Your task to perform on an android device: Do I have any events today? Image 0: 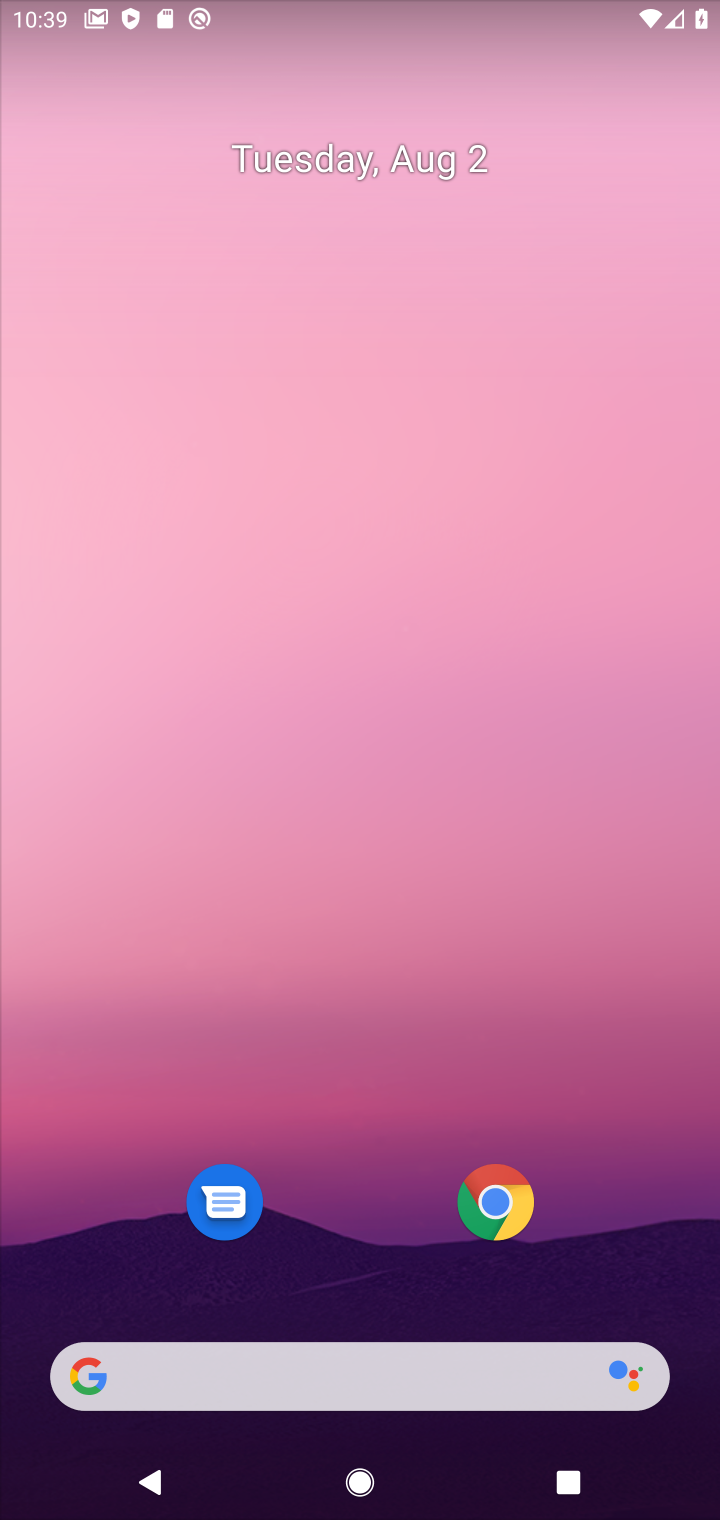
Step 0: drag from (692, 1284) to (411, 14)
Your task to perform on an android device: Do I have any events today? Image 1: 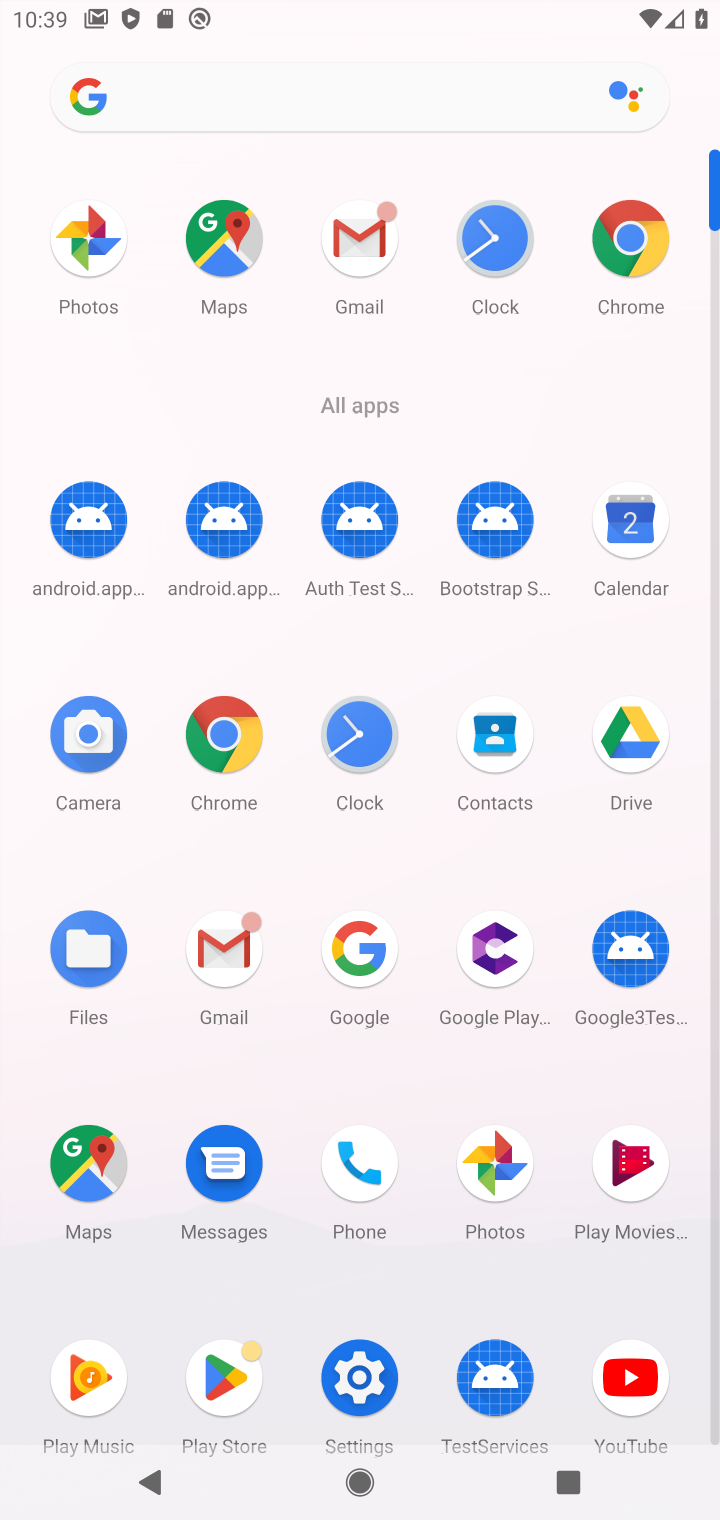
Step 1: click (617, 553)
Your task to perform on an android device: Do I have any events today? Image 2: 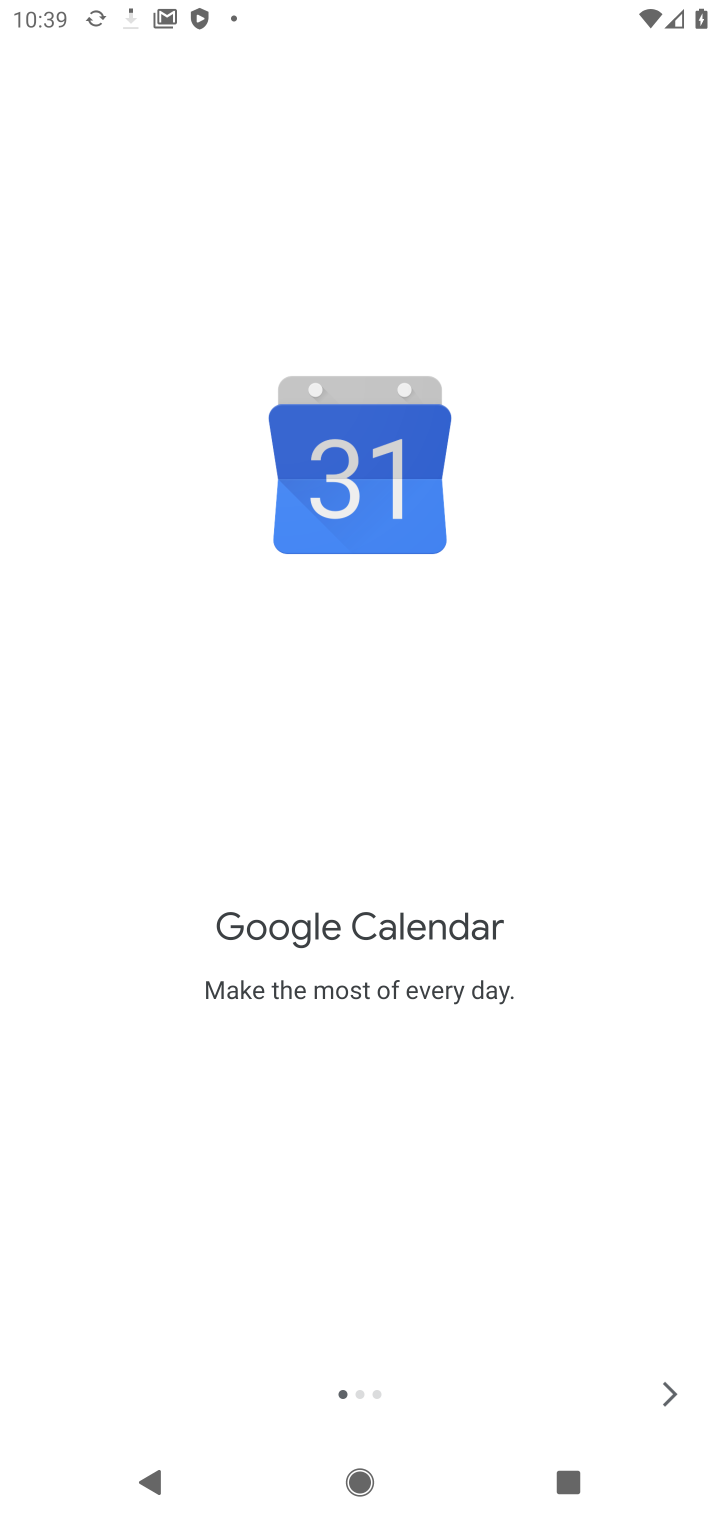
Step 2: click (679, 1408)
Your task to perform on an android device: Do I have any events today? Image 3: 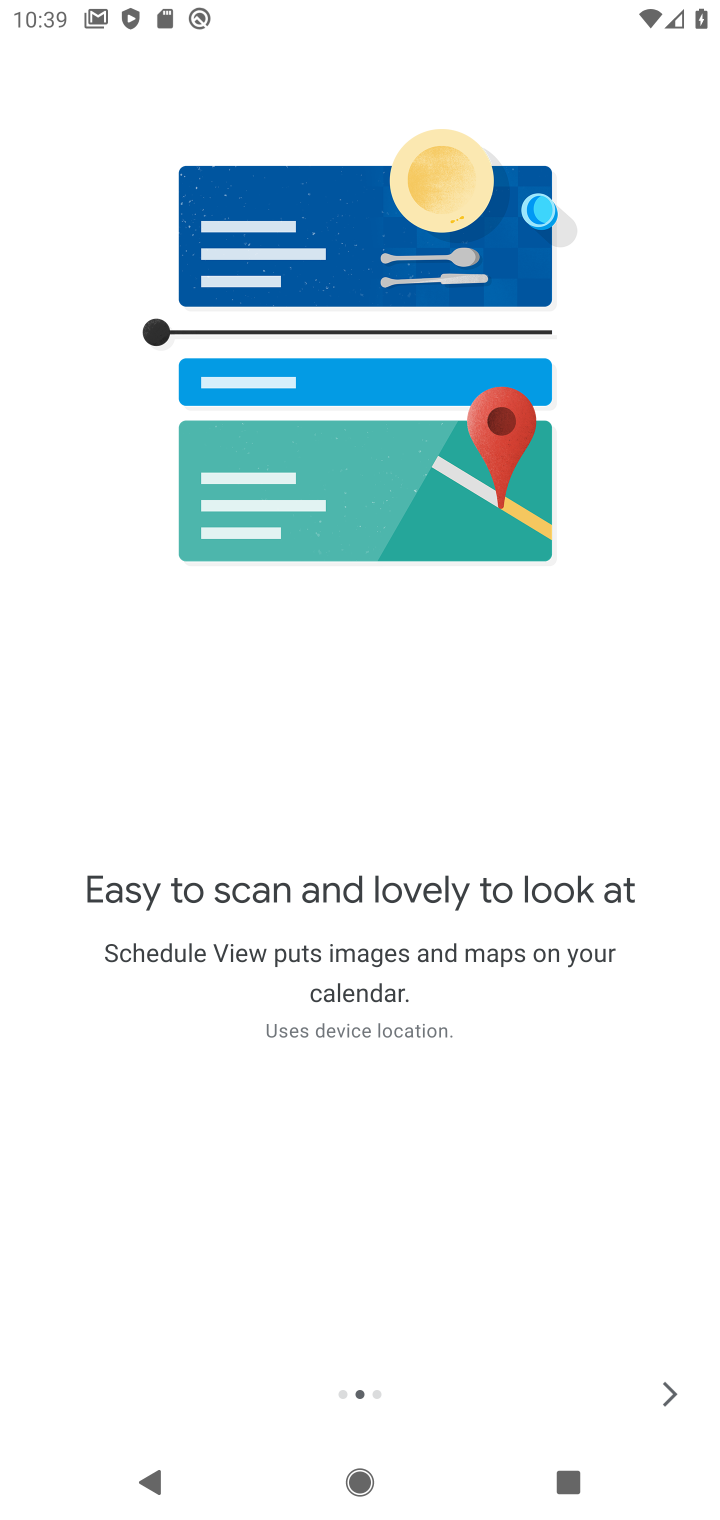
Step 3: click (679, 1408)
Your task to perform on an android device: Do I have any events today? Image 4: 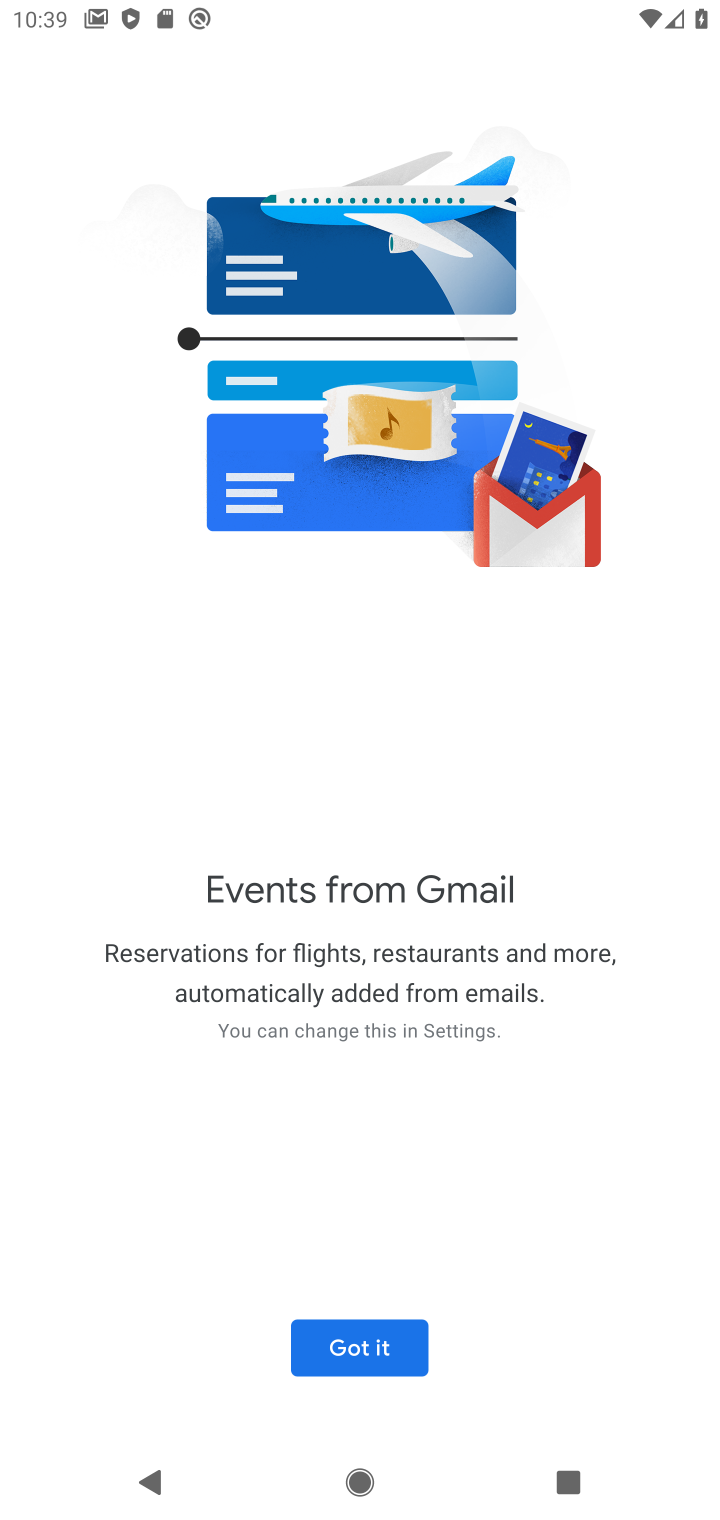
Step 4: click (394, 1341)
Your task to perform on an android device: Do I have any events today? Image 5: 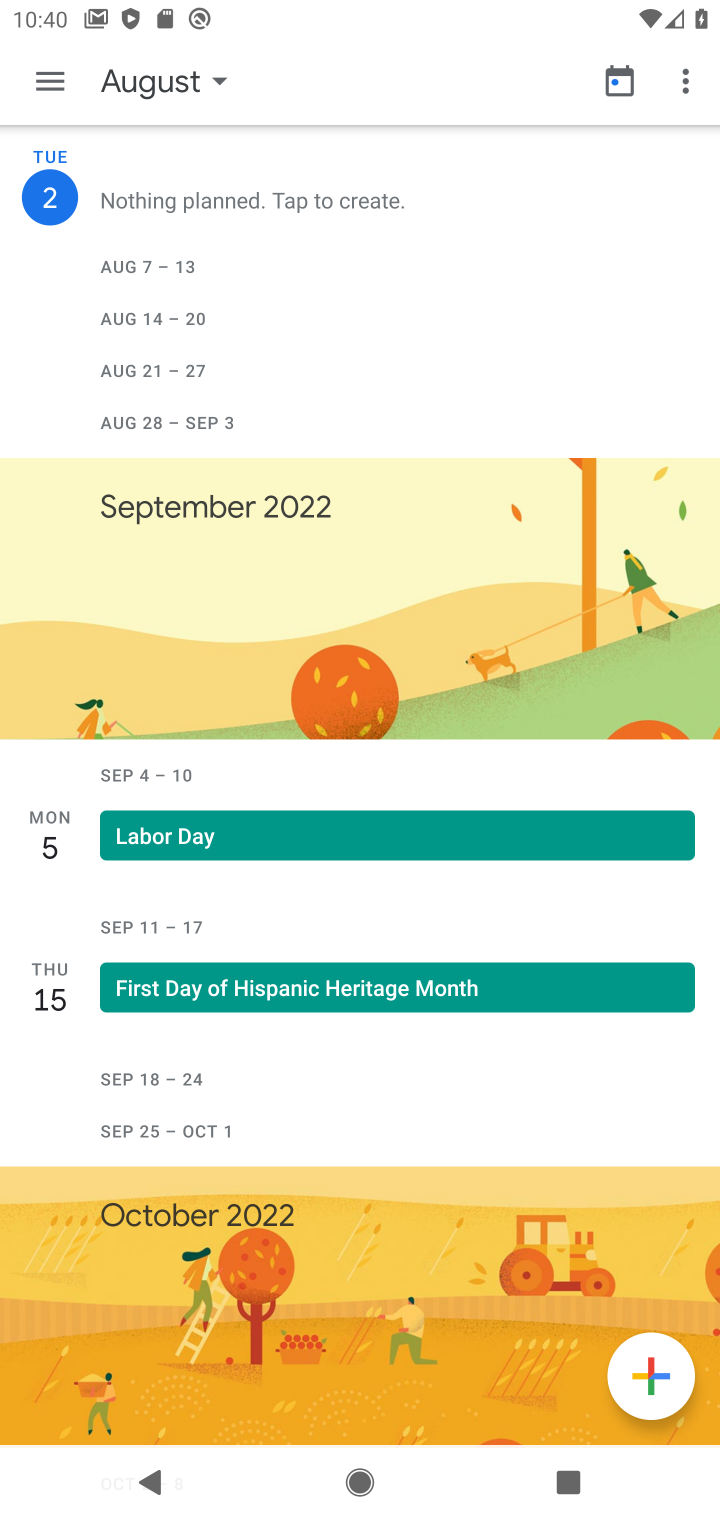
Step 5: click (60, 89)
Your task to perform on an android device: Do I have any events today? Image 6: 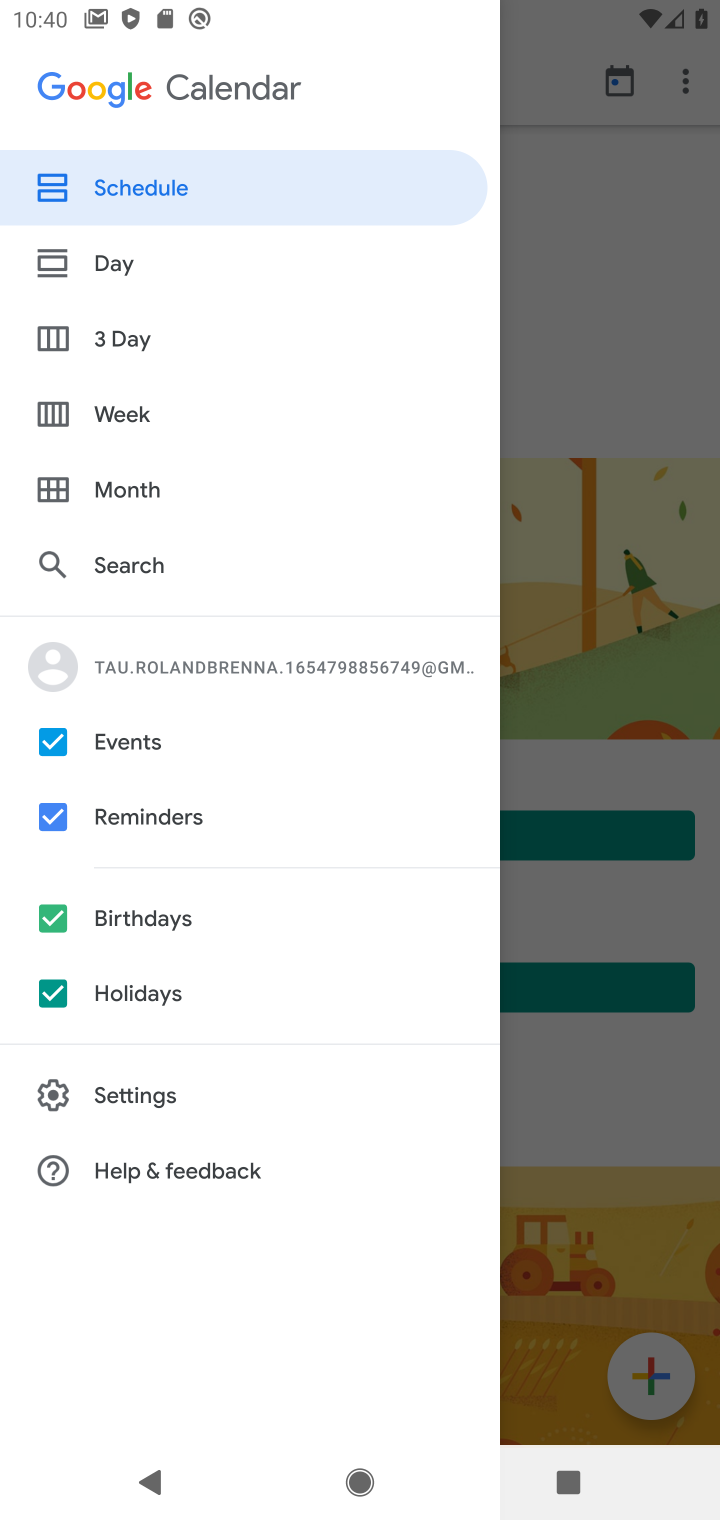
Step 6: click (49, 991)
Your task to perform on an android device: Do I have any events today? Image 7: 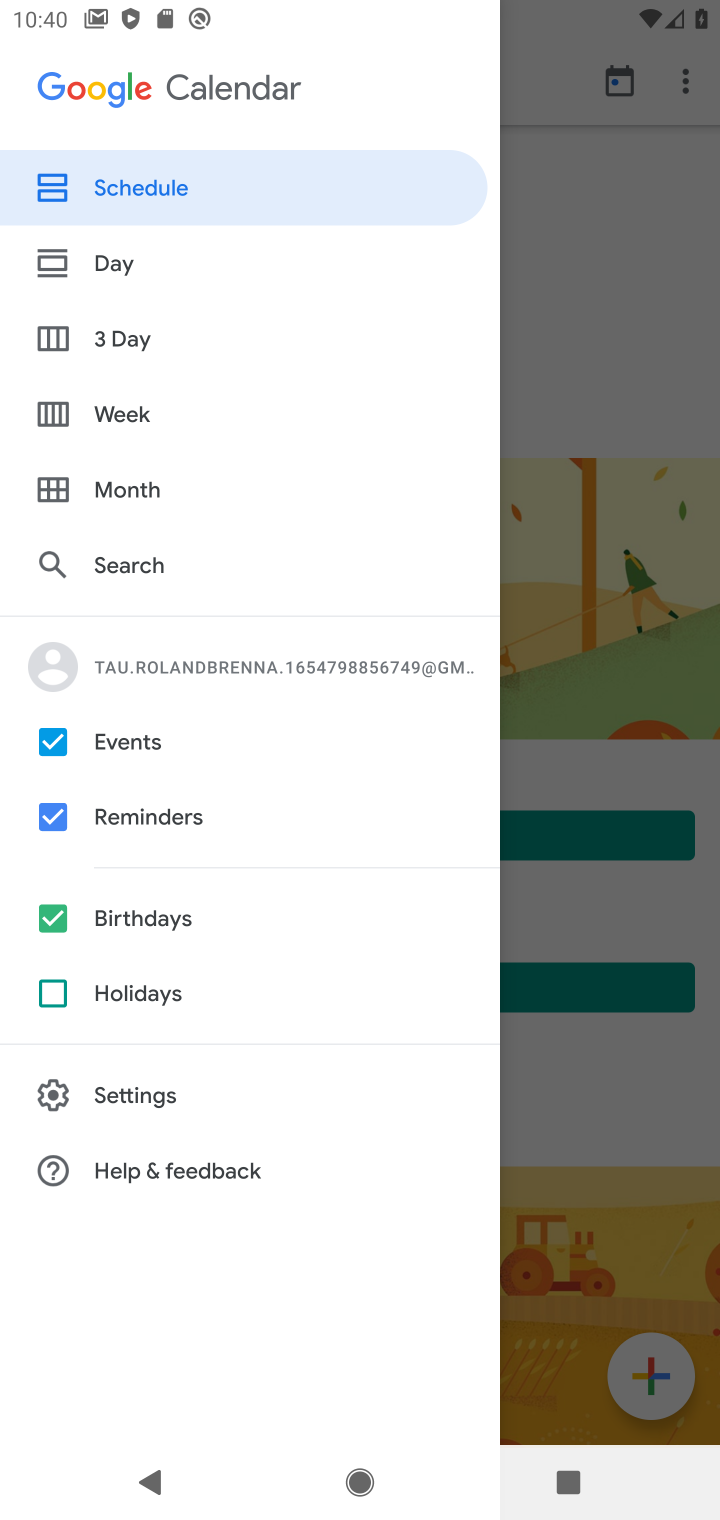
Step 7: click (53, 905)
Your task to perform on an android device: Do I have any events today? Image 8: 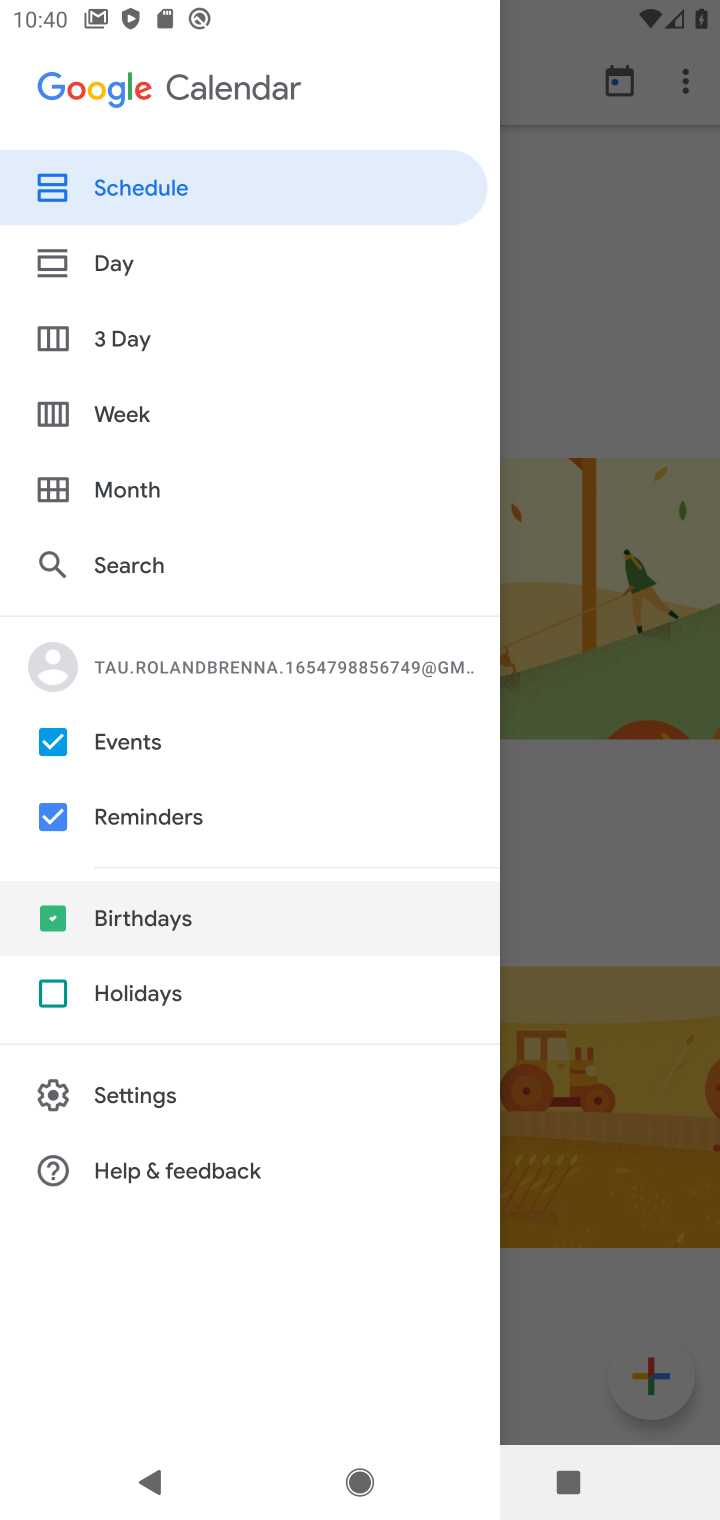
Step 8: click (50, 808)
Your task to perform on an android device: Do I have any events today? Image 9: 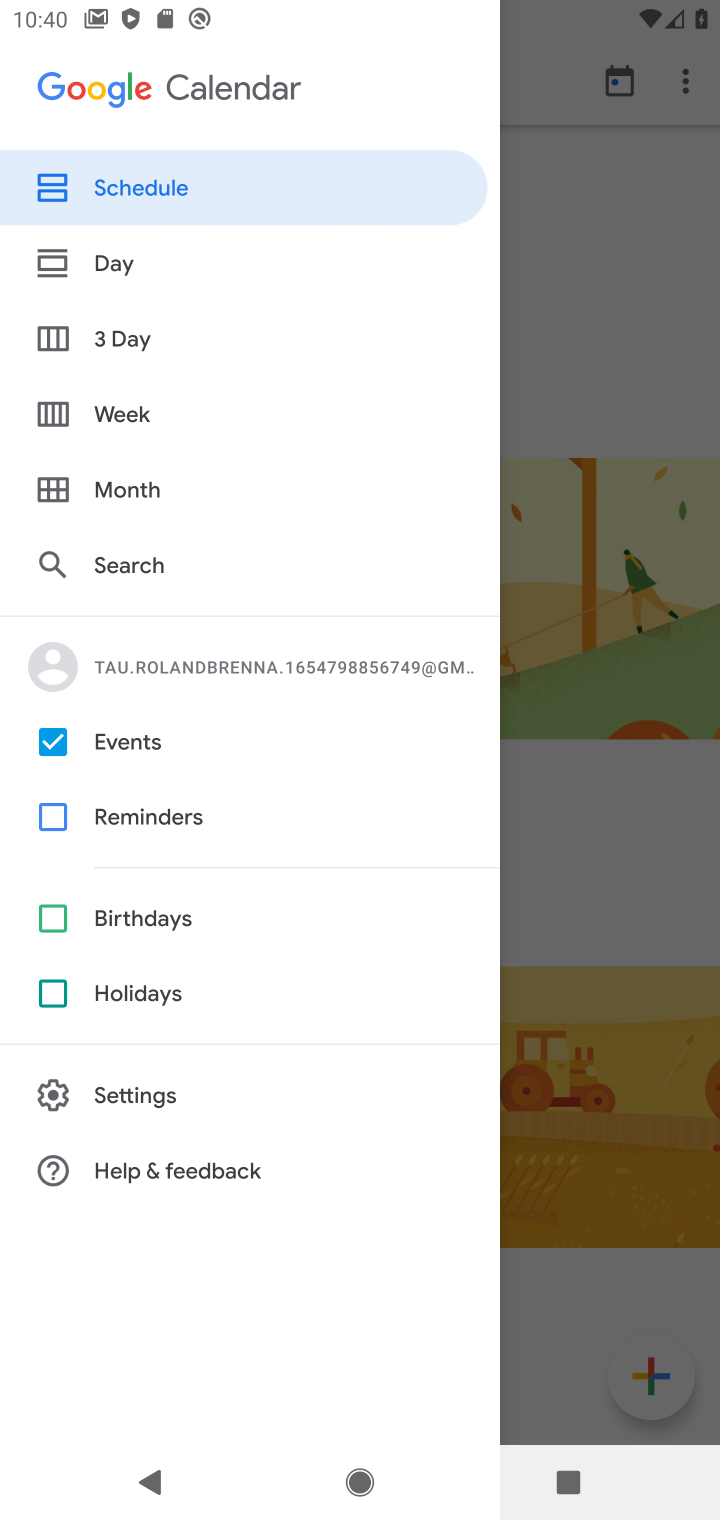
Step 9: click (76, 255)
Your task to perform on an android device: Do I have any events today? Image 10: 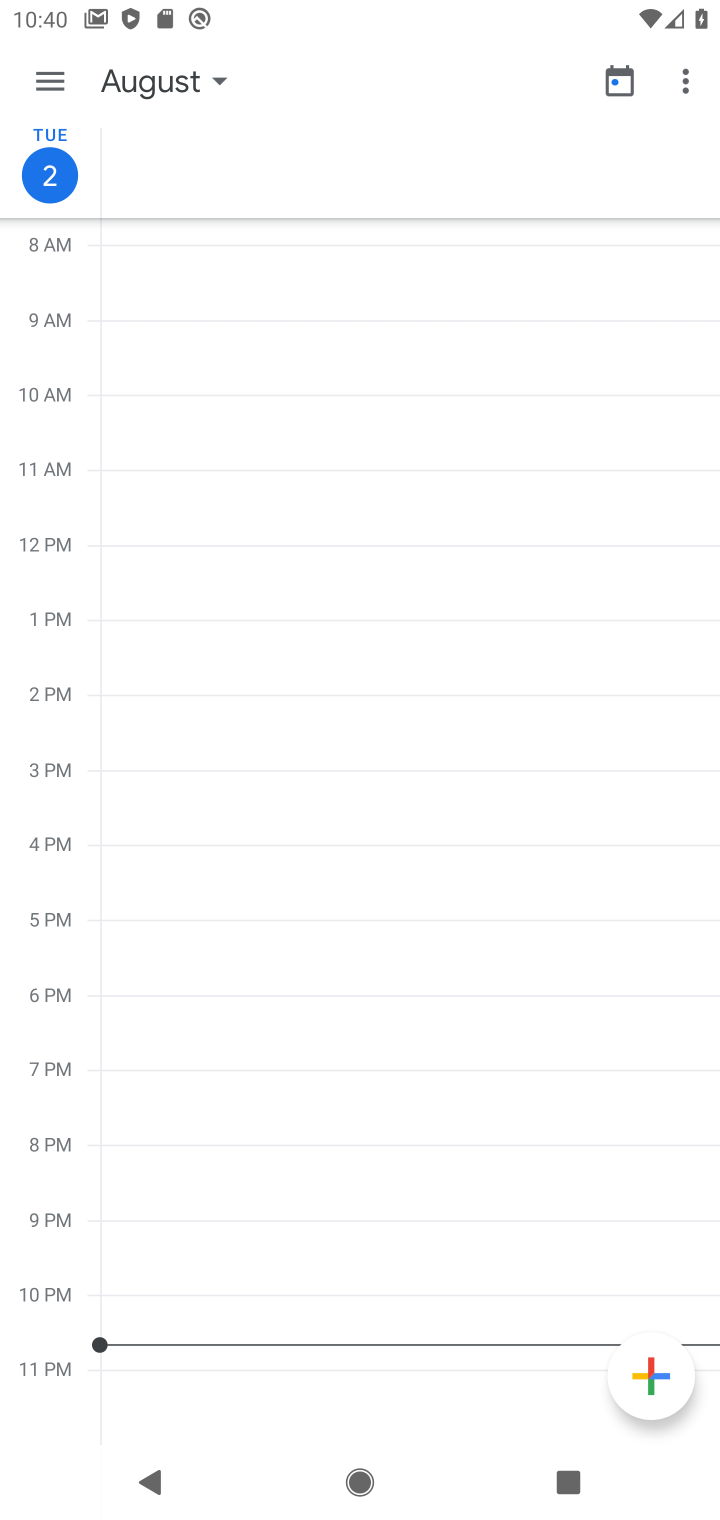
Step 10: task complete